Your task to perform on an android device: Open Youtube and go to the subscriptions tab Image 0: 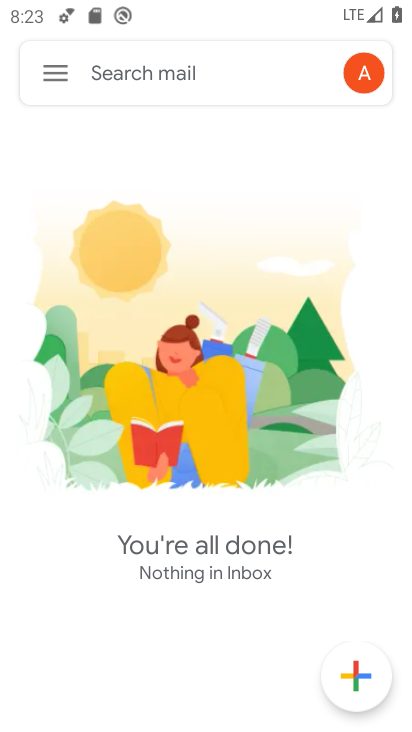
Step 0: press home button
Your task to perform on an android device: Open Youtube and go to the subscriptions tab Image 1: 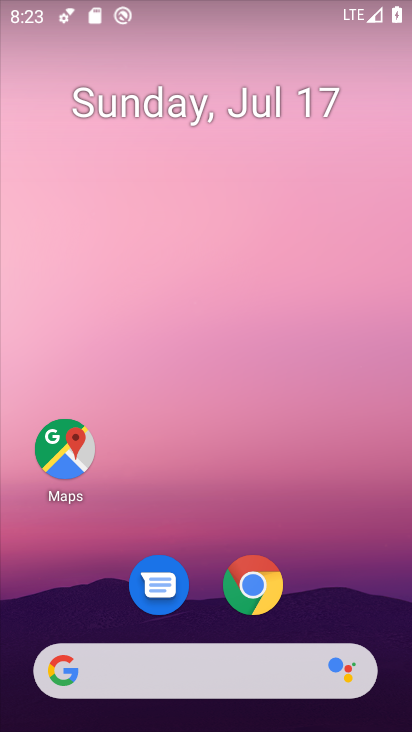
Step 1: drag from (318, 584) to (275, 97)
Your task to perform on an android device: Open Youtube and go to the subscriptions tab Image 2: 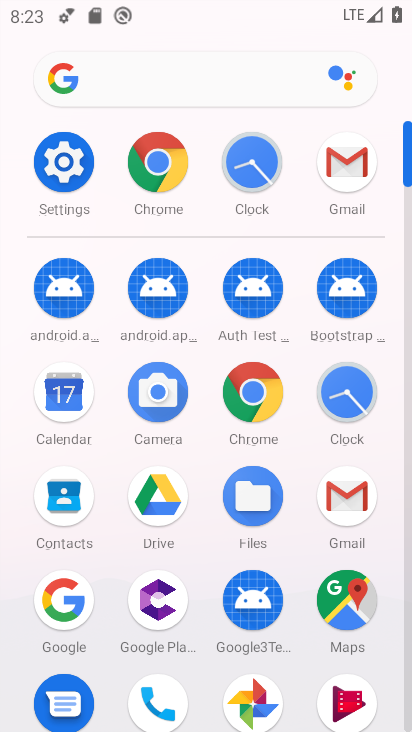
Step 2: drag from (233, 485) to (229, 195)
Your task to perform on an android device: Open Youtube and go to the subscriptions tab Image 3: 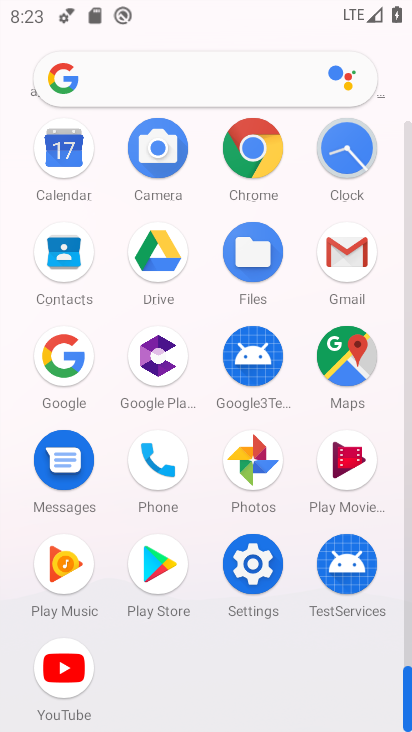
Step 3: click (67, 667)
Your task to perform on an android device: Open Youtube and go to the subscriptions tab Image 4: 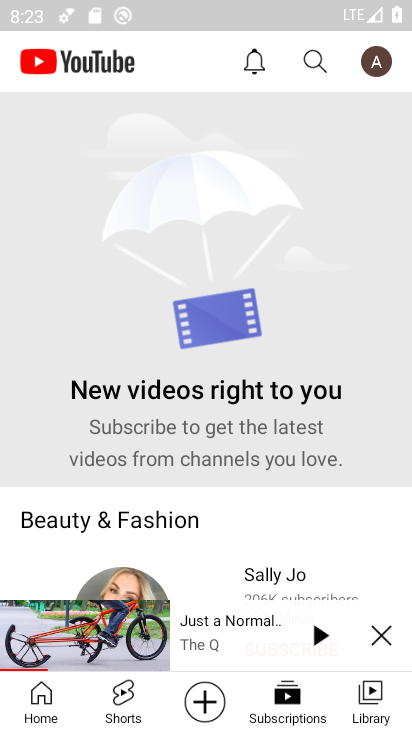
Step 4: click (285, 711)
Your task to perform on an android device: Open Youtube and go to the subscriptions tab Image 5: 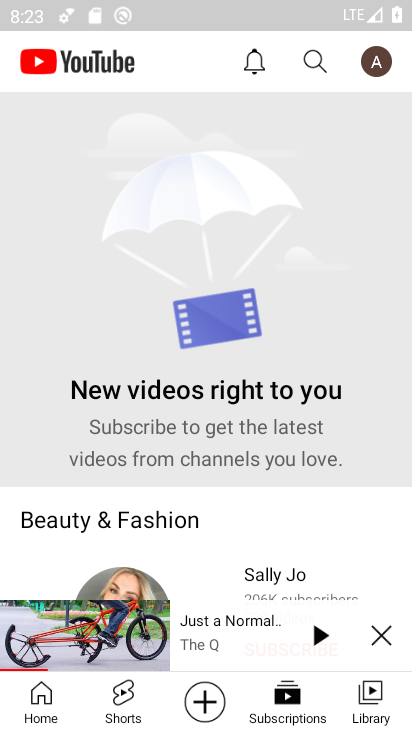
Step 5: task complete